Your task to perform on an android device: turn on priority inbox in the gmail app Image 0: 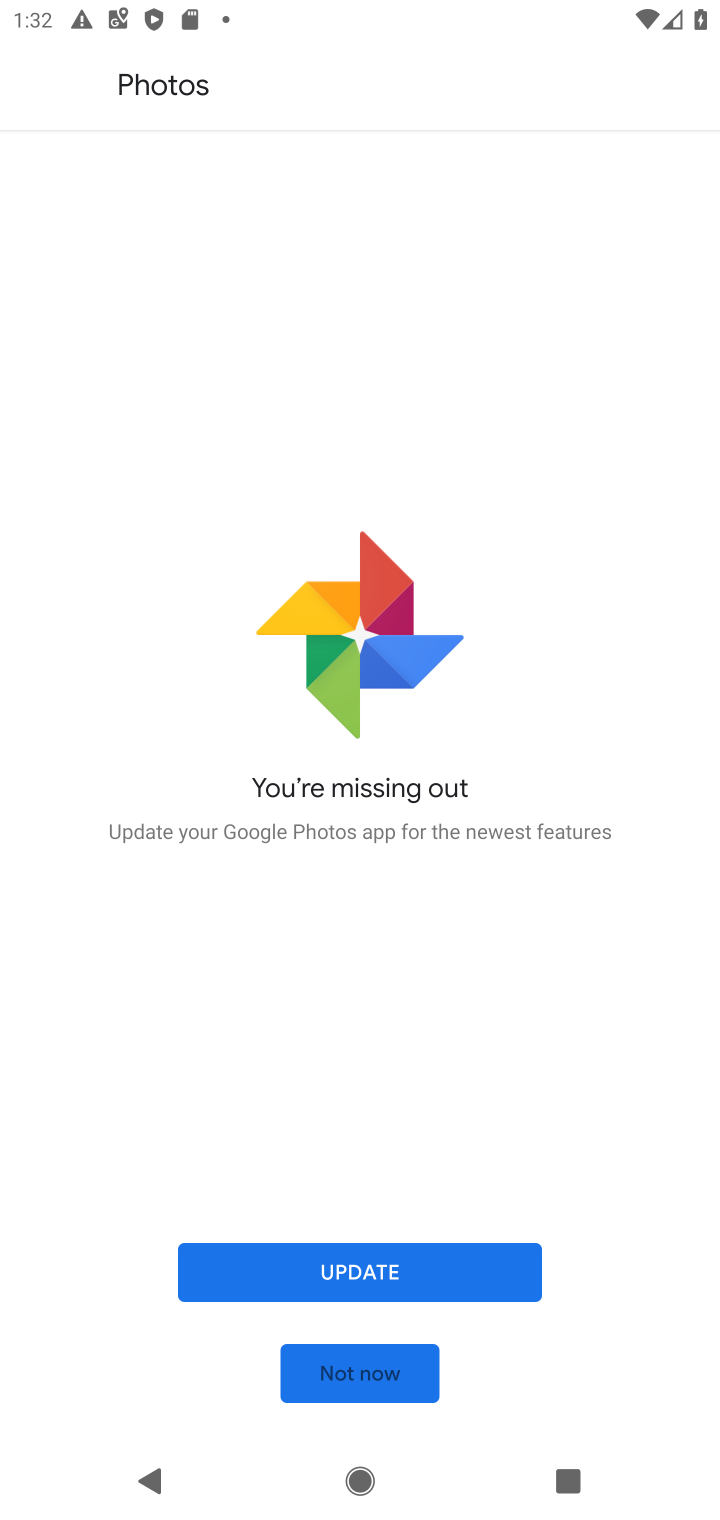
Step 0: press home button
Your task to perform on an android device: turn on priority inbox in the gmail app Image 1: 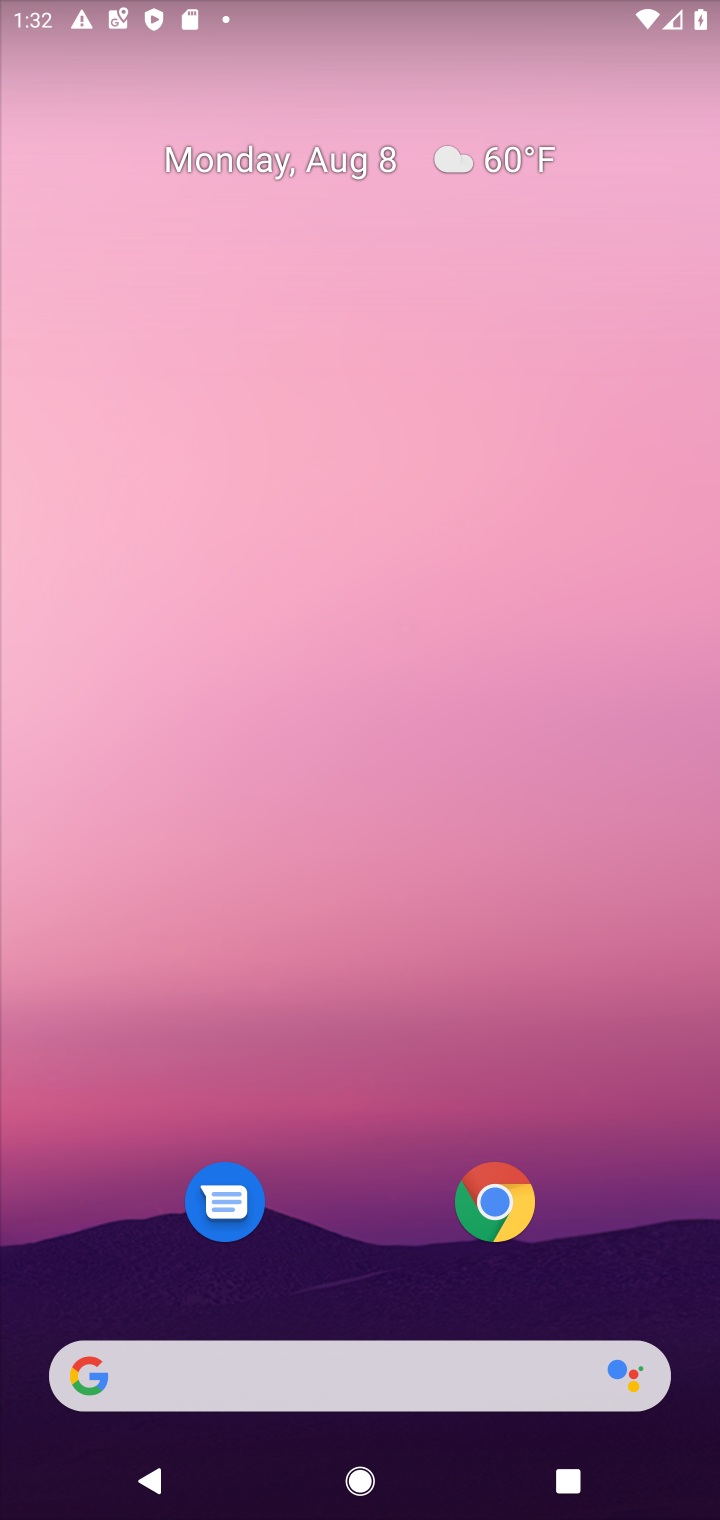
Step 1: drag from (581, 958) to (611, 243)
Your task to perform on an android device: turn on priority inbox in the gmail app Image 2: 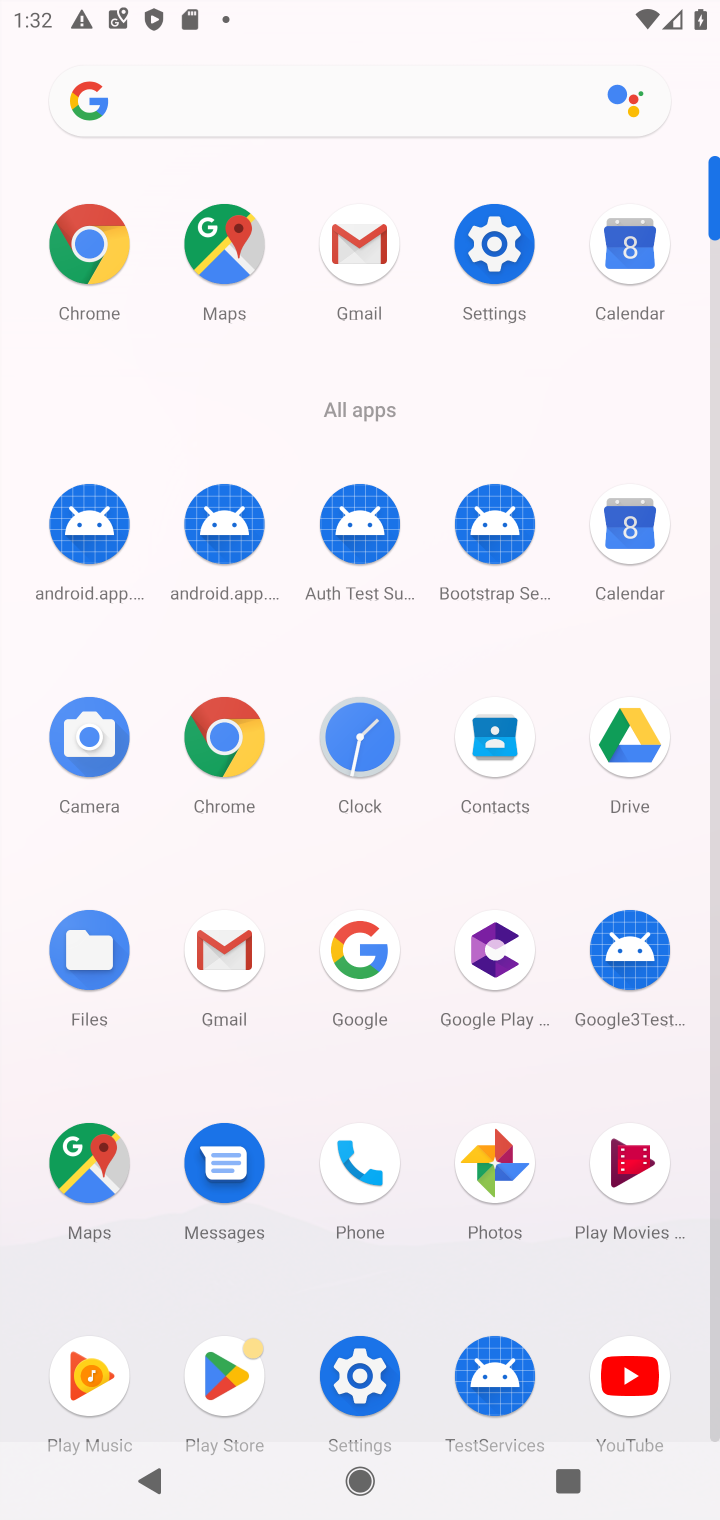
Step 2: click (354, 237)
Your task to perform on an android device: turn on priority inbox in the gmail app Image 3: 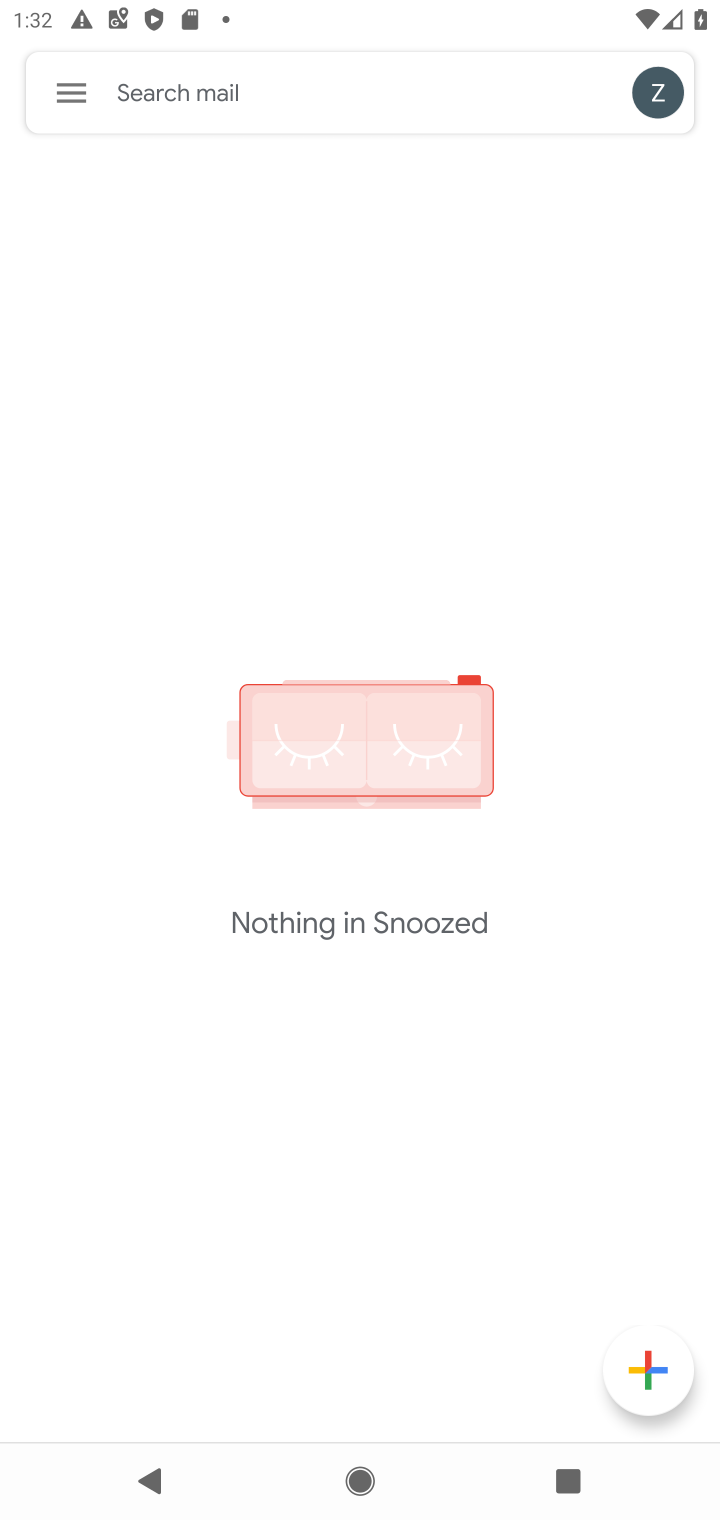
Step 3: click (67, 83)
Your task to perform on an android device: turn on priority inbox in the gmail app Image 4: 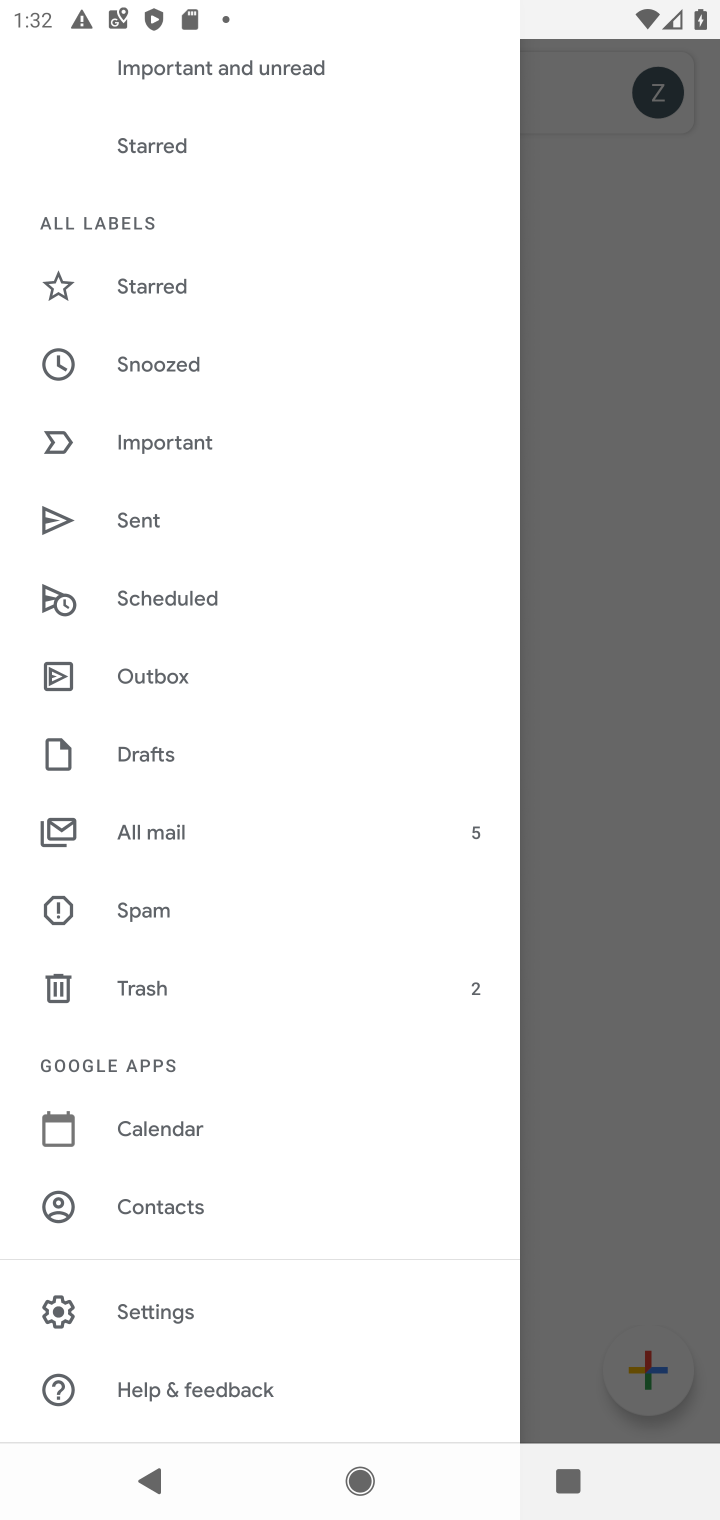
Step 4: click (182, 1325)
Your task to perform on an android device: turn on priority inbox in the gmail app Image 5: 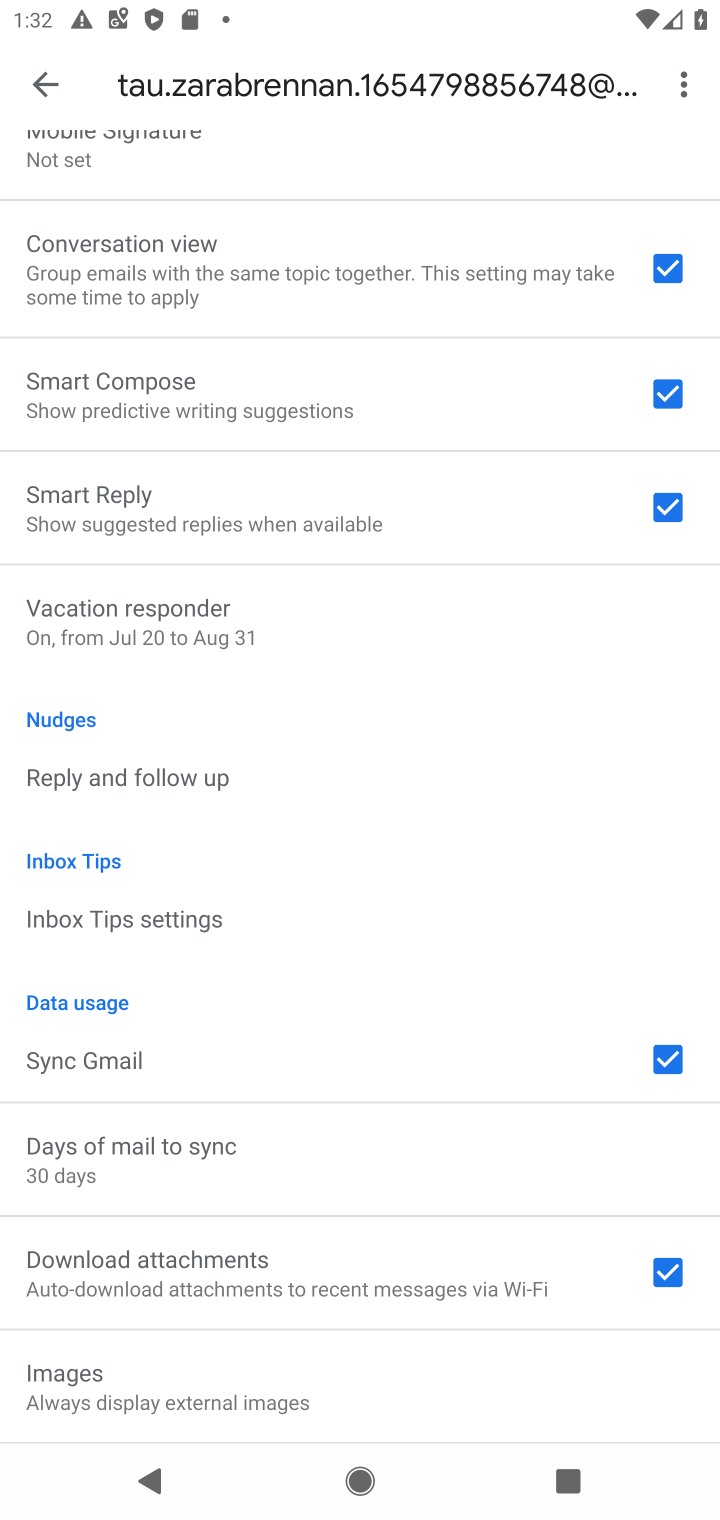
Step 5: drag from (493, 745) to (497, 832)
Your task to perform on an android device: turn on priority inbox in the gmail app Image 6: 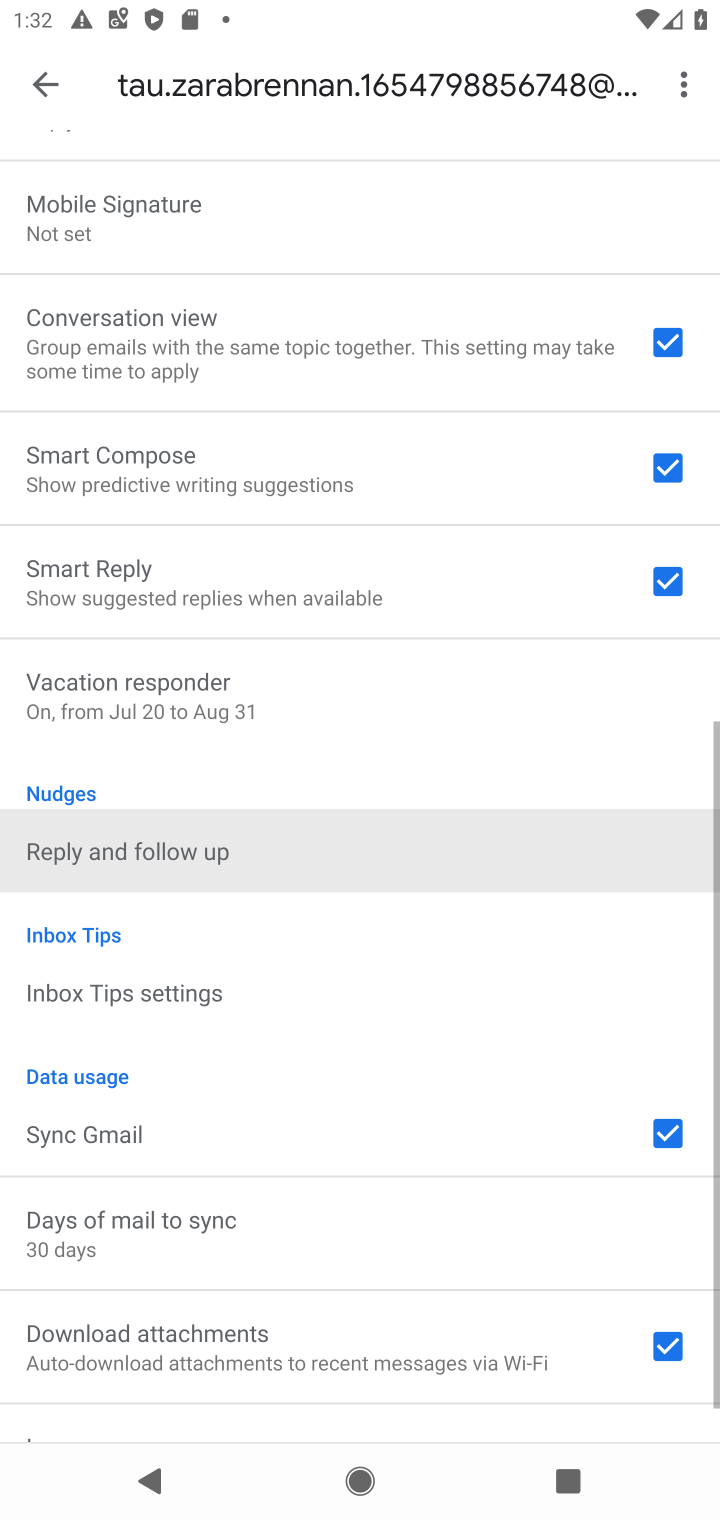
Step 6: drag from (468, 775) to (466, 910)
Your task to perform on an android device: turn on priority inbox in the gmail app Image 7: 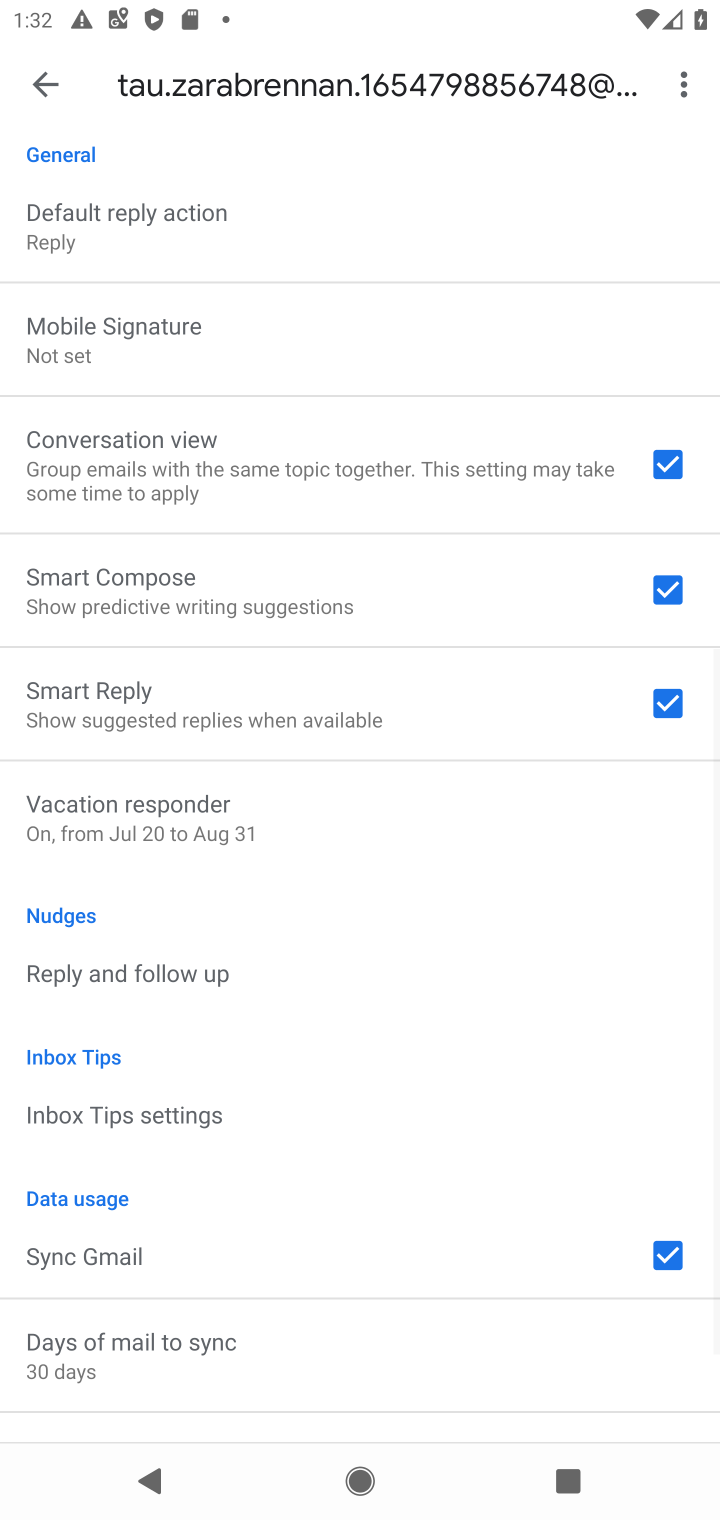
Step 7: drag from (468, 430) to (463, 903)
Your task to perform on an android device: turn on priority inbox in the gmail app Image 8: 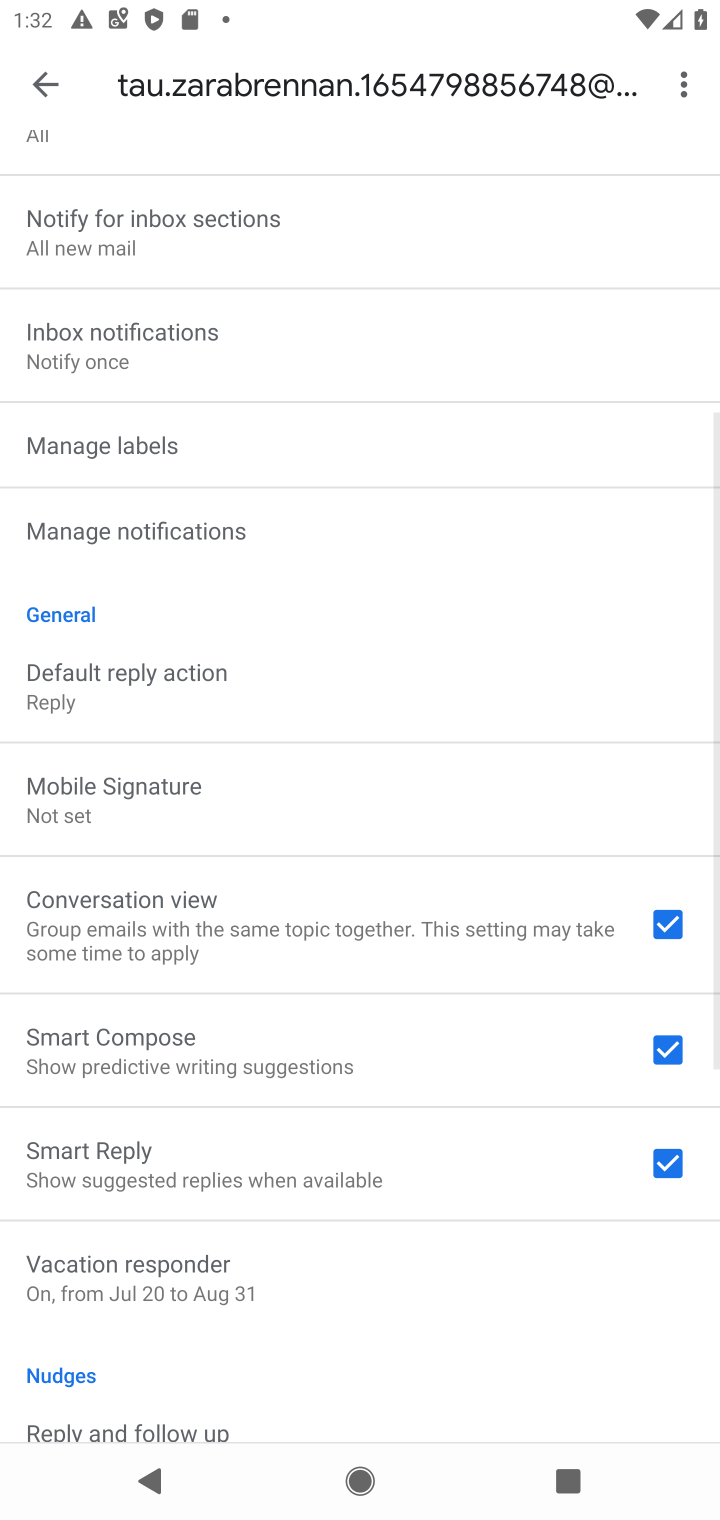
Step 8: drag from (419, 356) to (403, 893)
Your task to perform on an android device: turn on priority inbox in the gmail app Image 9: 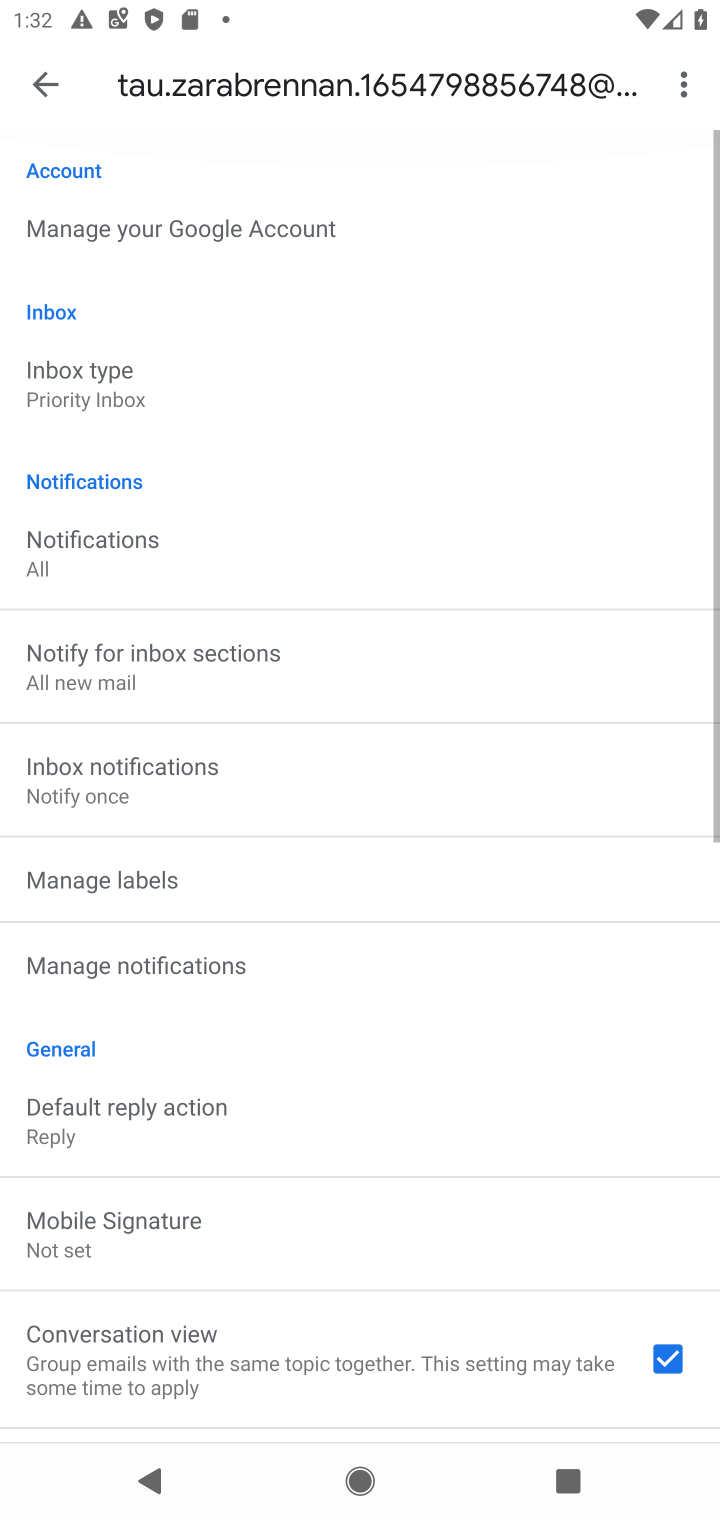
Step 9: drag from (406, 356) to (393, 764)
Your task to perform on an android device: turn on priority inbox in the gmail app Image 10: 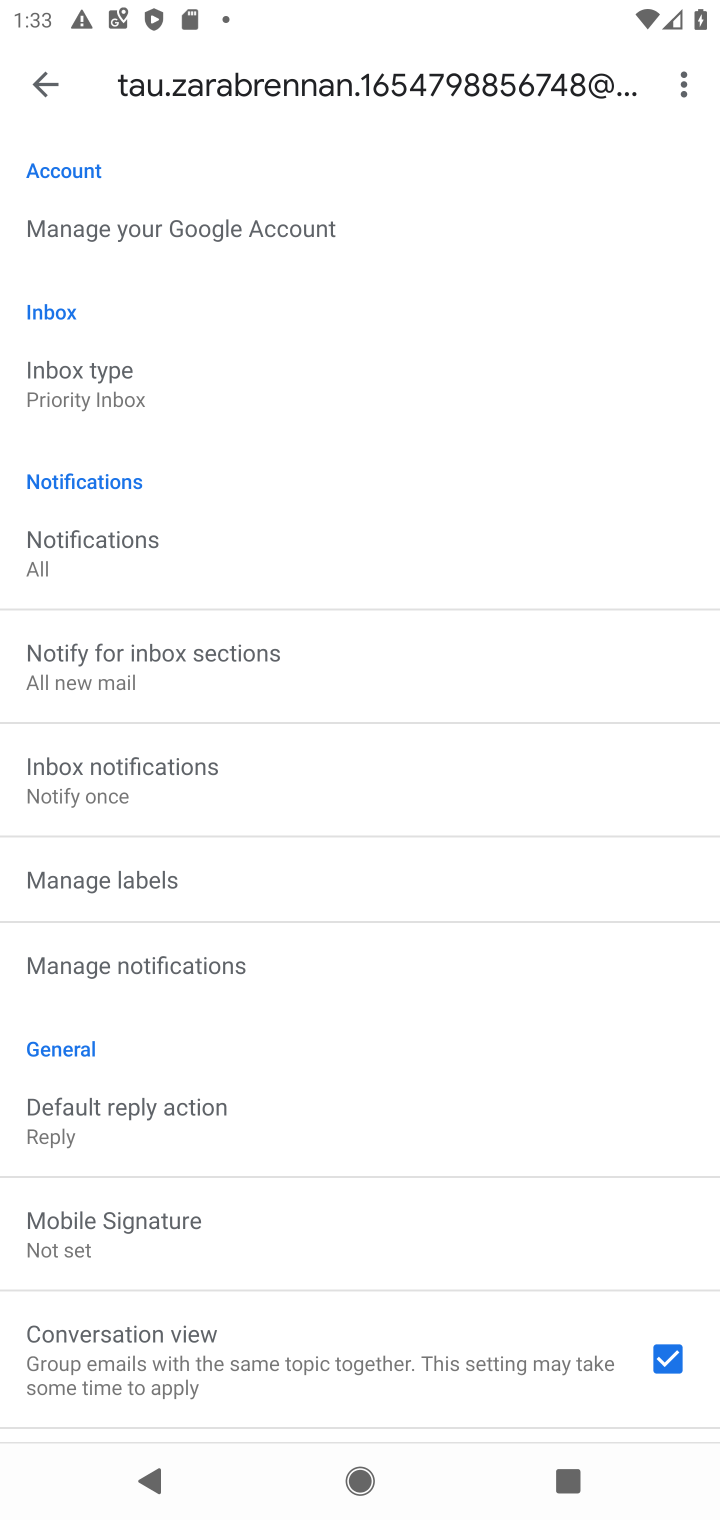
Step 10: click (143, 383)
Your task to perform on an android device: turn on priority inbox in the gmail app Image 11: 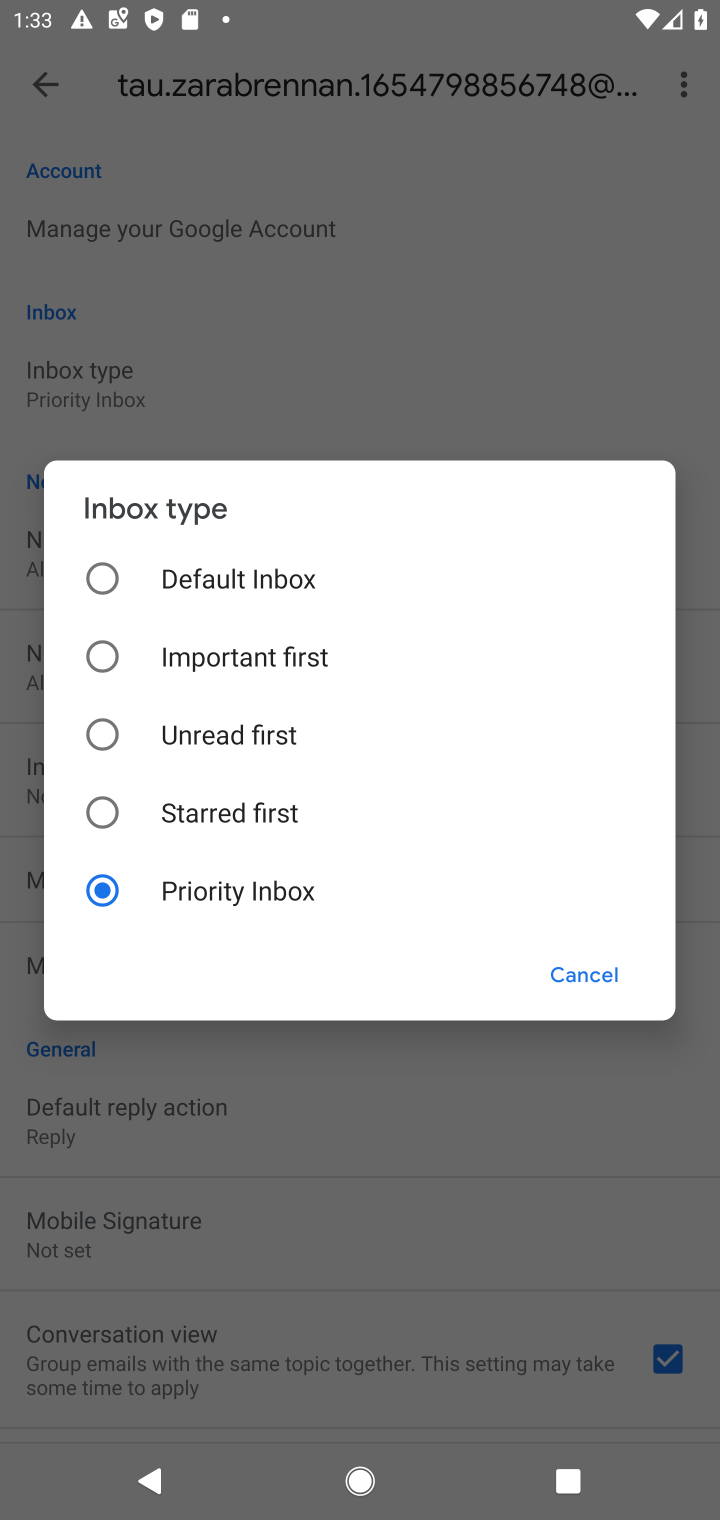
Step 11: task complete